Your task to perform on an android device: Open Google Image 0: 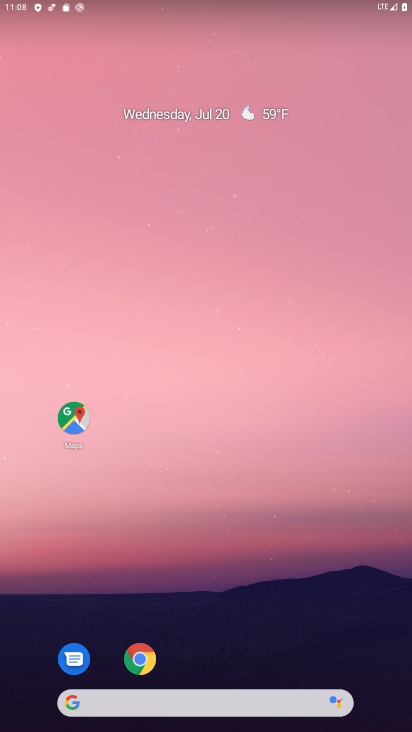
Step 0: drag from (232, 731) to (232, 191)
Your task to perform on an android device: Open Google Image 1: 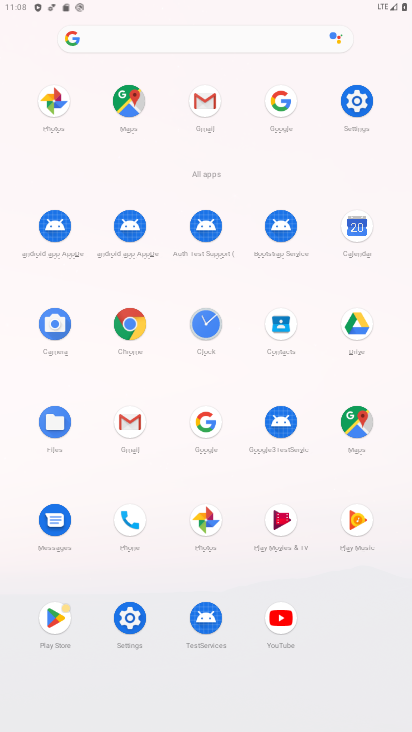
Step 1: click (209, 425)
Your task to perform on an android device: Open Google Image 2: 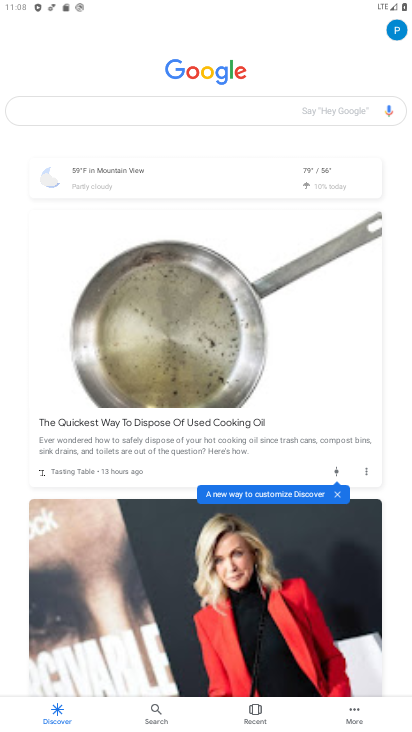
Step 2: task complete